Your task to perform on an android device: Open location settings Image 0: 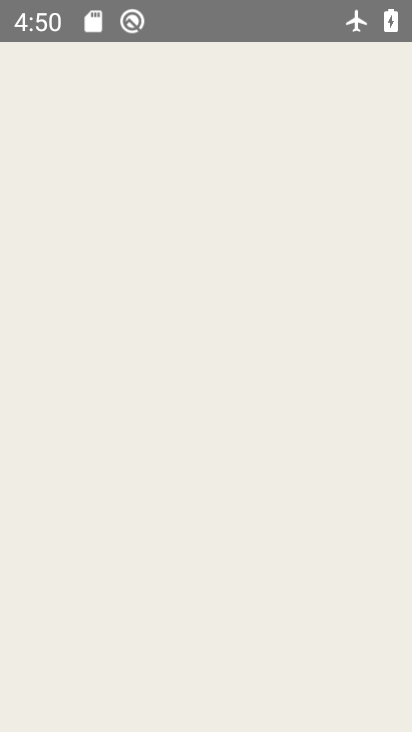
Step 0: click (314, 147)
Your task to perform on an android device: Open location settings Image 1: 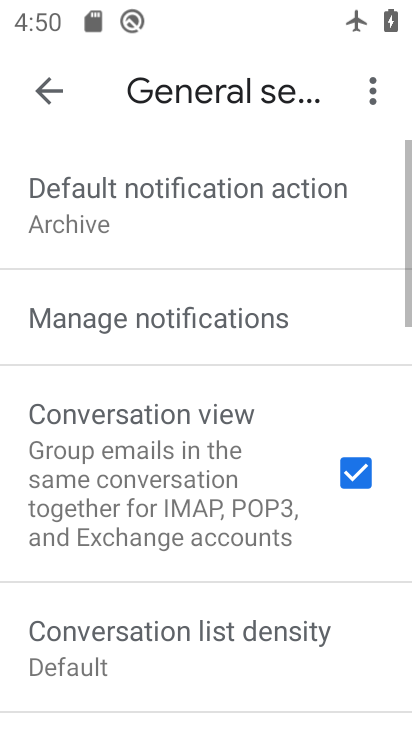
Step 1: press home button
Your task to perform on an android device: Open location settings Image 2: 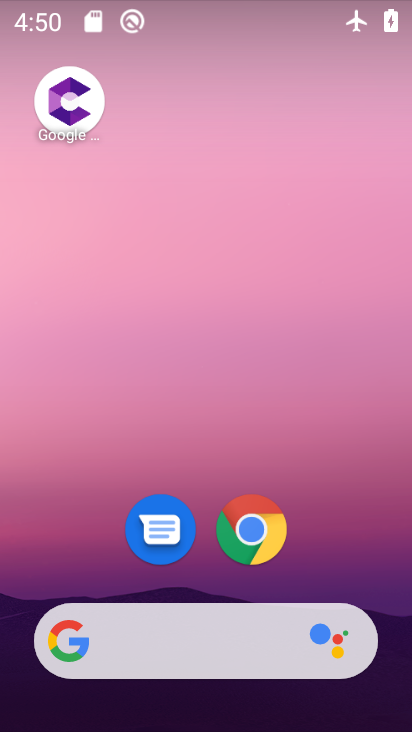
Step 2: drag from (320, 557) to (321, 220)
Your task to perform on an android device: Open location settings Image 3: 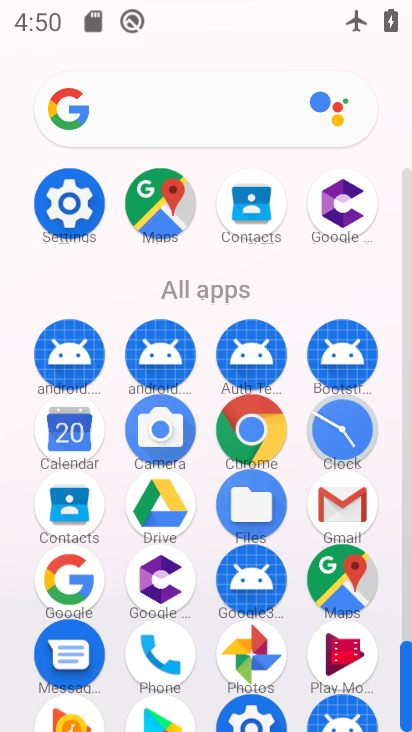
Step 3: click (262, 711)
Your task to perform on an android device: Open location settings Image 4: 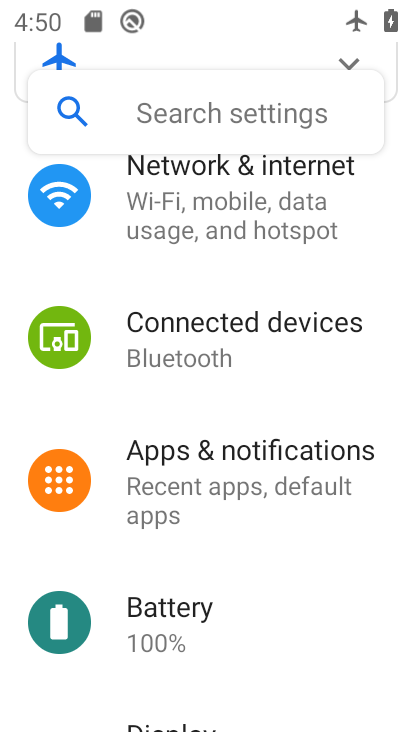
Step 4: drag from (264, 649) to (289, 277)
Your task to perform on an android device: Open location settings Image 5: 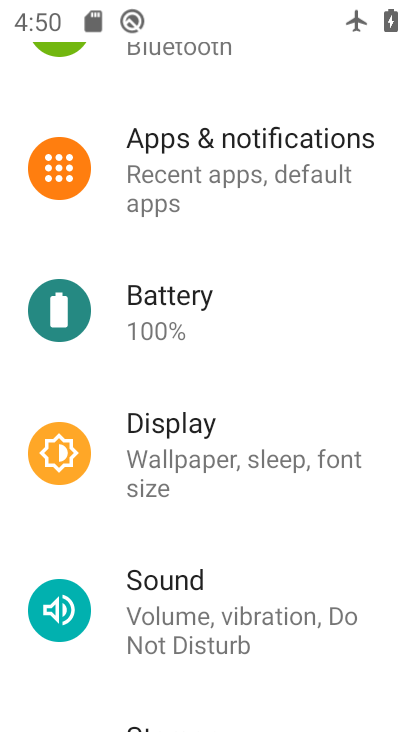
Step 5: drag from (275, 545) to (301, 340)
Your task to perform on an android device: Open location settings Image 6: 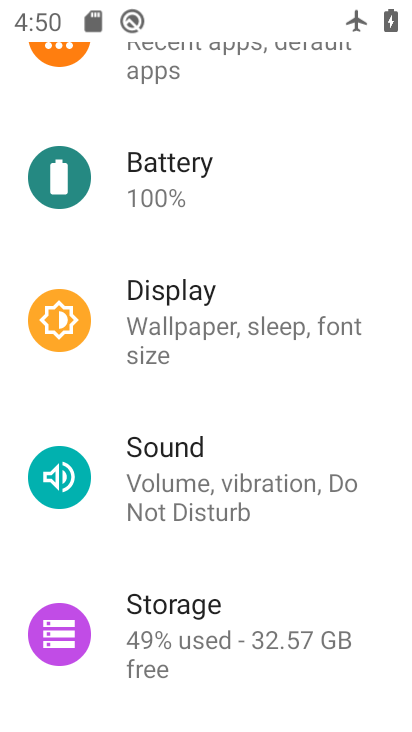
Step 6: drag from (275, 693) to (329, 304)
Your task to perform on an android device: Open location settings Image 7: 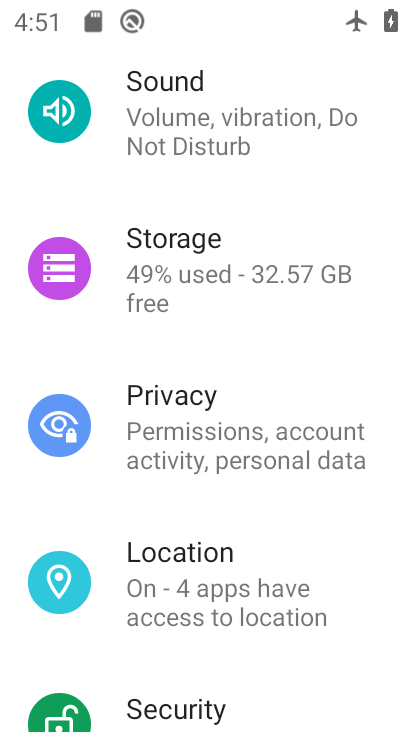
Step 7: click (283, 603)
Your task to perform on an android device: Open location settings Image 8: 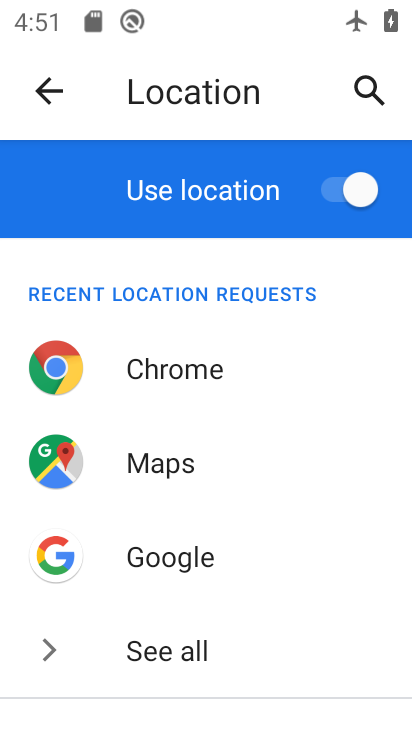
Step 8: task complete